Your task to perform on an android device: turn on sleep mode Image 0: 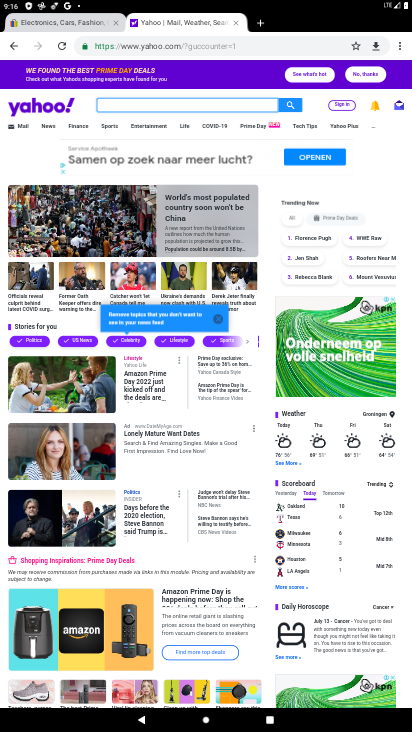
Step 0: press home button
Your task to perform on an android device: turn on sleep mode Image 1: 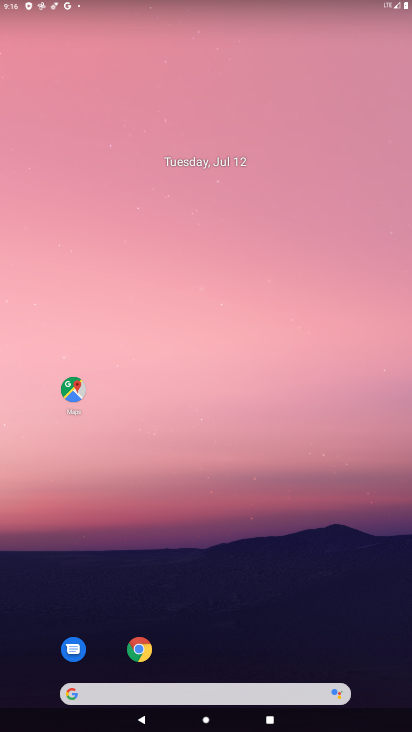
Step 1: drag from (291, 605) to (277, 75)
Your task to perform on an android device: turn on sleep mode Image 2: 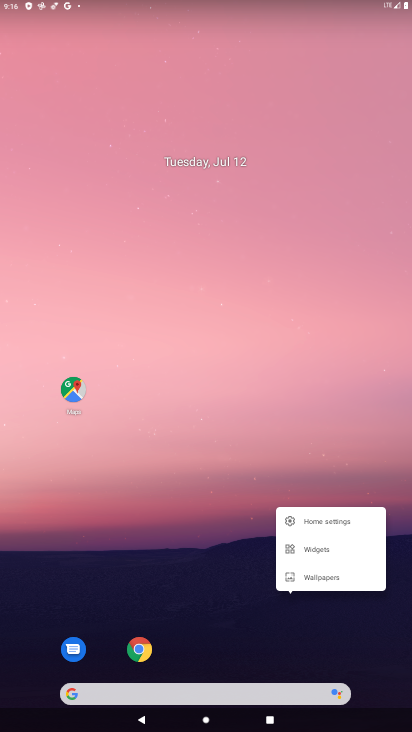
Step 2: click (149, 570)
Your task to perform on an android device: turn on sleep mode Image 3: 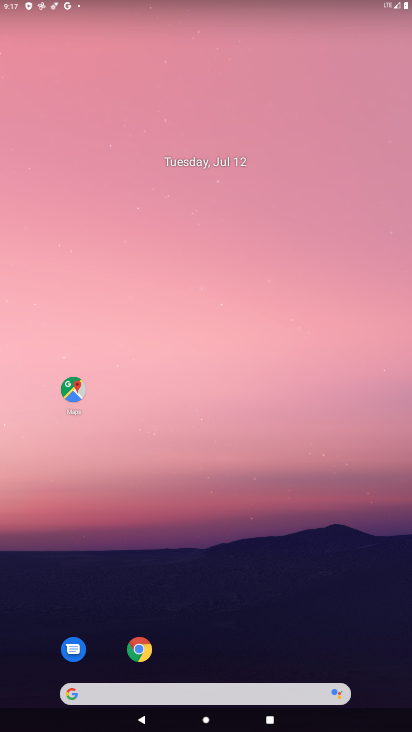
Step 3: drag from (201, 653) to (203, 154)
Your task to perform on an android device: turn on sleep mode Image 4: 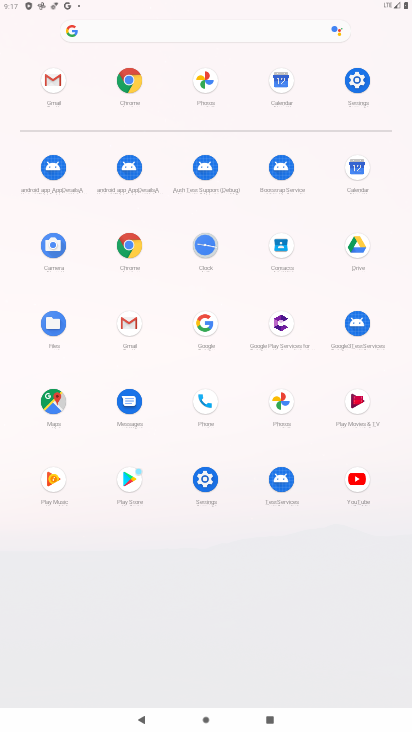
Step 4: click (361, 91)
Your task to perform on an android device: turn on sleep mode Image 5: 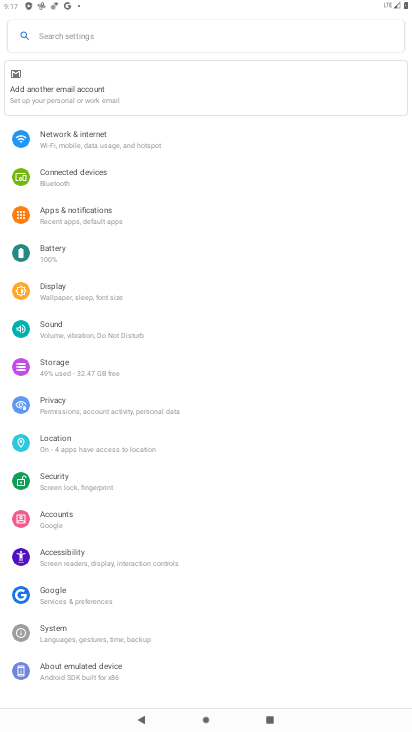
Step 5: click (97, 299)
Your task to perform on an android device: turn on sleep mode Image 6: 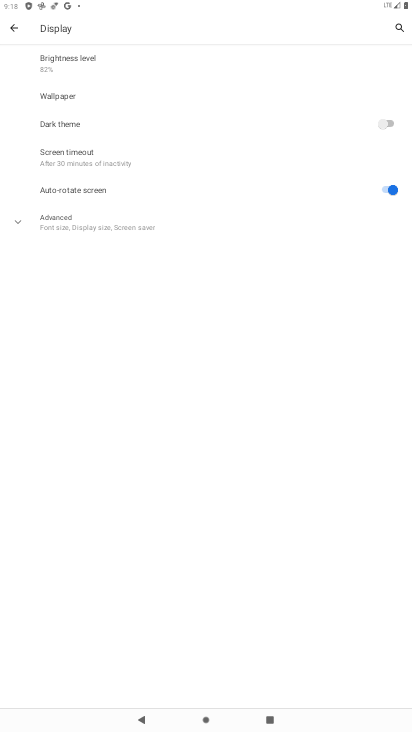
Step 6: task complete